Your task to perform on an android device: check android version Image 0: 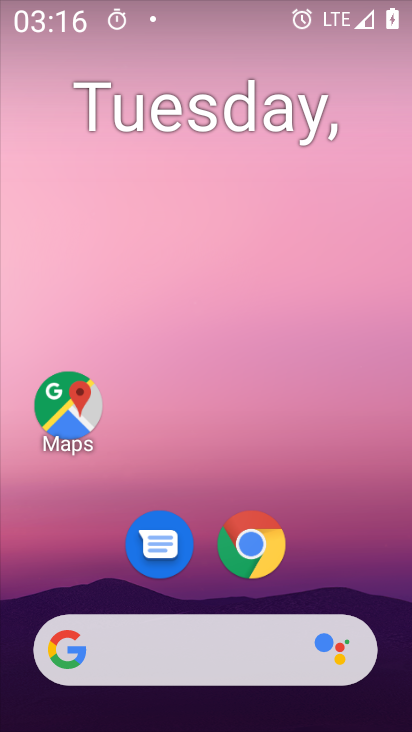
Step 0: drag from (322, 510) to (232, 29)
Your task to perform on an android device: check android version Image 1: 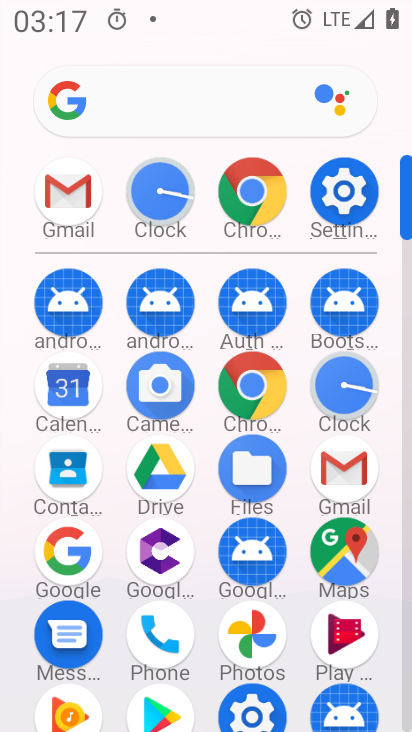
Step 1: click (345, 184)
Your task to perform on an android device: check android version Image 2: 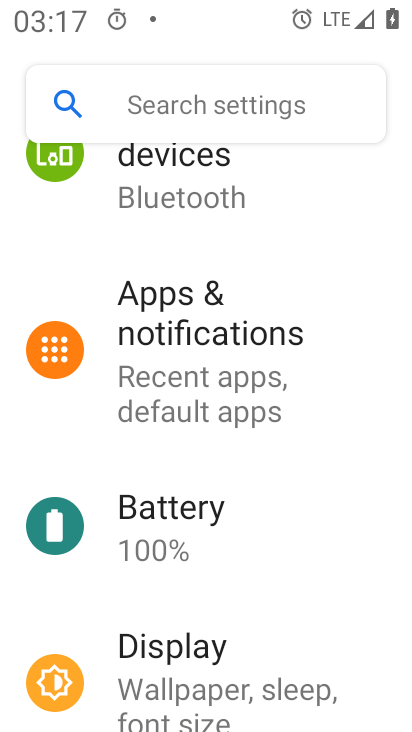
Step 2: drag from (276, 652) to (227, 176)
Your task to perform on an android device: check android version Image 3: 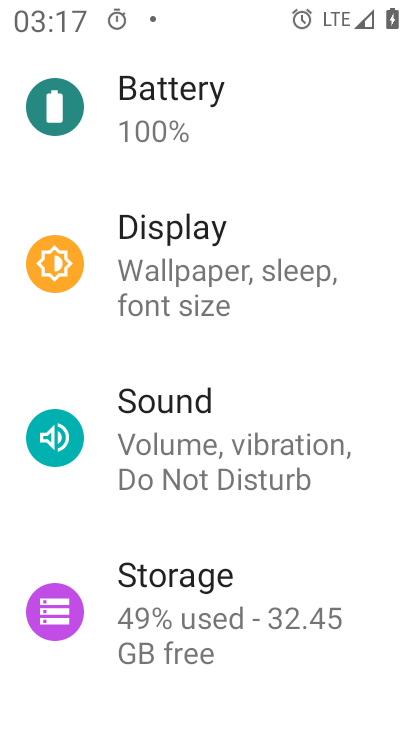
Step 3: drag from (307, 575) to (279, 132)
Your task to perform on an android device: check android version Image 4: 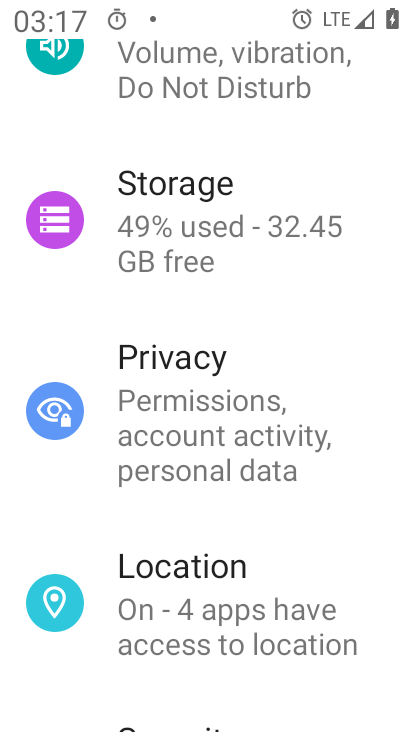
Step 4: drag from (262, 617) to (262, 221)
Your task to perform on an android device: check android version Image 5: 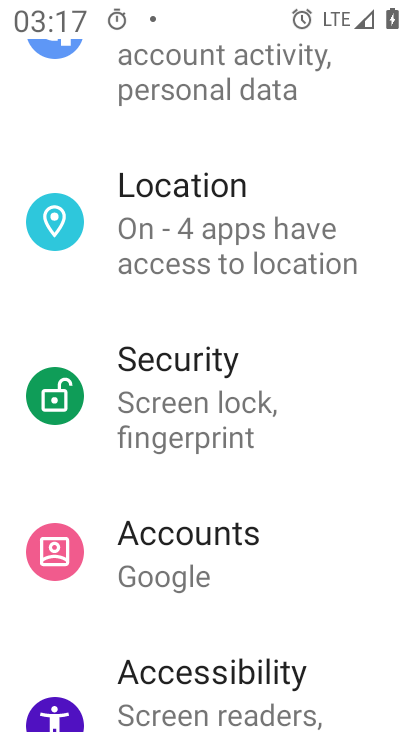
Step 5: drag from (383, 628) to (299, 178)
Your task to perform on an android device: check android version Image 6: 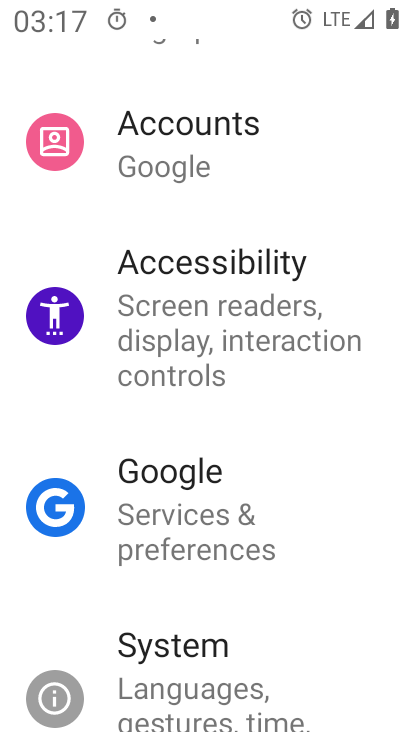
Step 6: drag from (289, 560) to (273, 174)
Your task to perform on an android device: check android version Image 7: 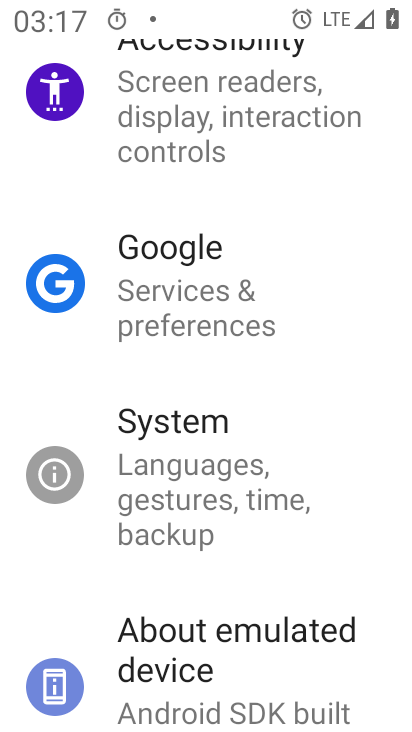
Step 7: drag from (284, 595) to (268, 170)
Your task to perform on an android device: check android version Image 8: 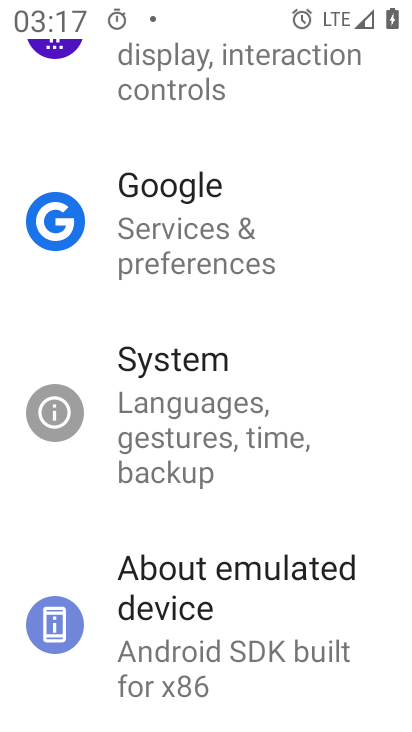
Step 8: click (266, 598)
Your task to perform on an android device: check android version Image 9: 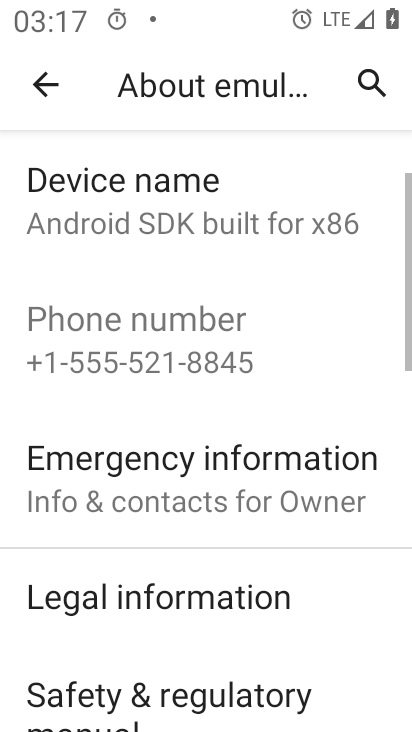
Step 9: task complete